Your task to perform on an android device: turn on bluetooth scan Image 0: 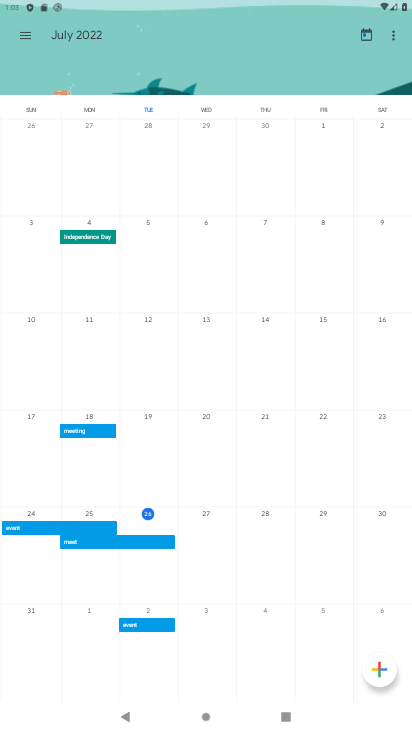
Step 0: press home button
Your task to perform on an android device: turn on bluetooth scan Image 1: 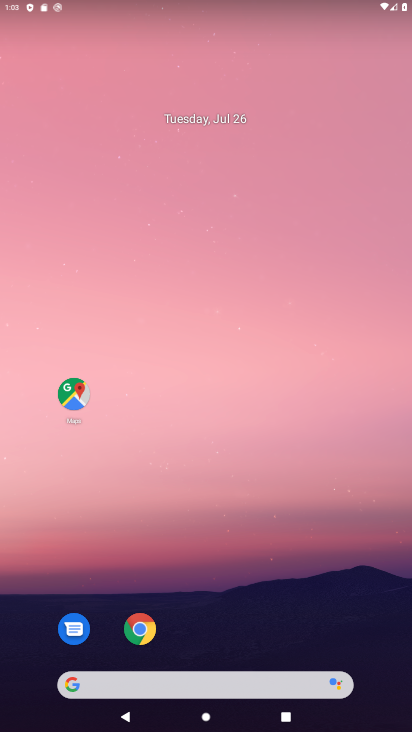
Step 1: drag from (390, 693) to (312, 55)
Your task to perform on an android device: turn on bluetooth scan Image 2: 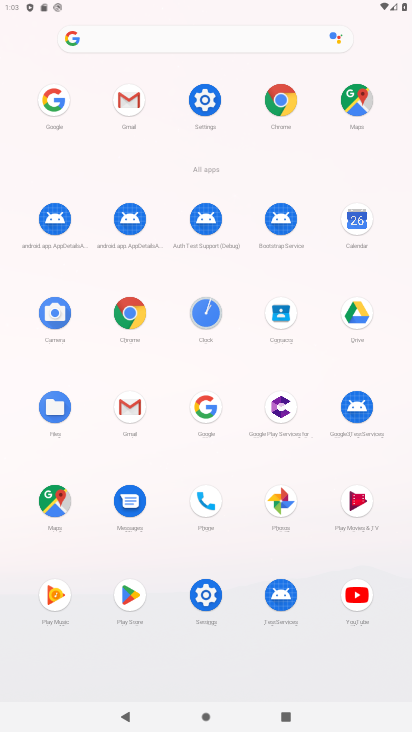
Step 2: click (197, 102)
Your task to perform on an android device: turn on bluetooth scan Image 3: 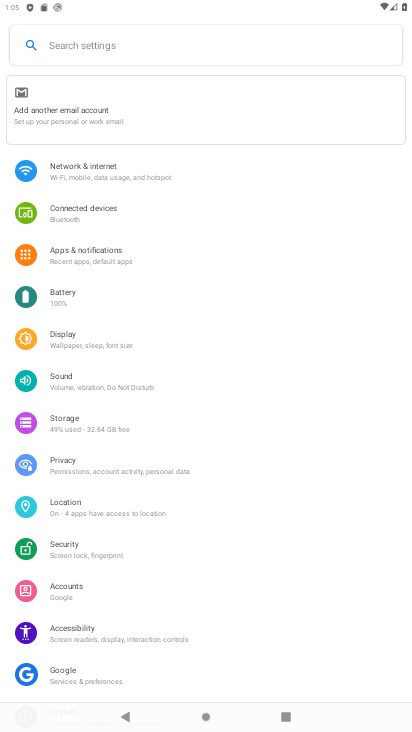
Step 3: click (66, 510)
Your task to perform on an android device: turn on bluetooth scan Image 4: 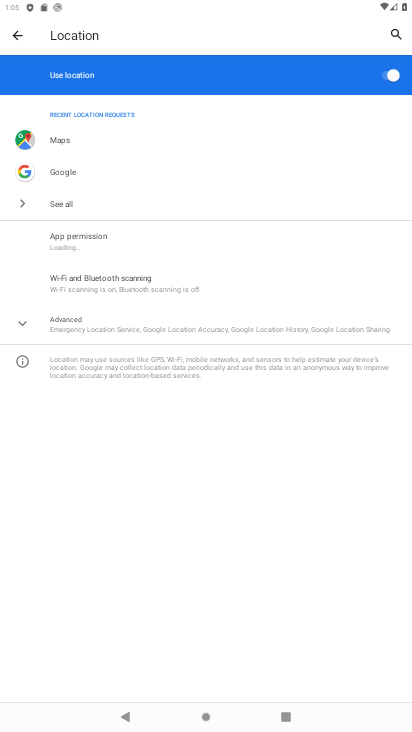
Step 4: click (23, 317)
Your task to perform on an android device: turn on bluetooth scan Image 5: 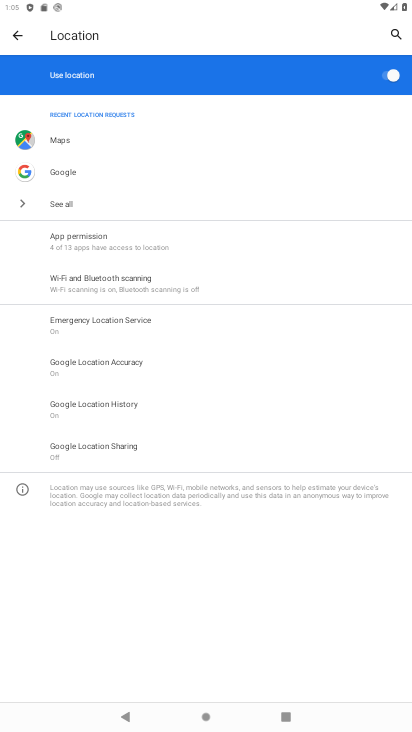
Step 5: click (131, 286)
Your task to perform on an android device: turn on bluetooth scan Image 6: 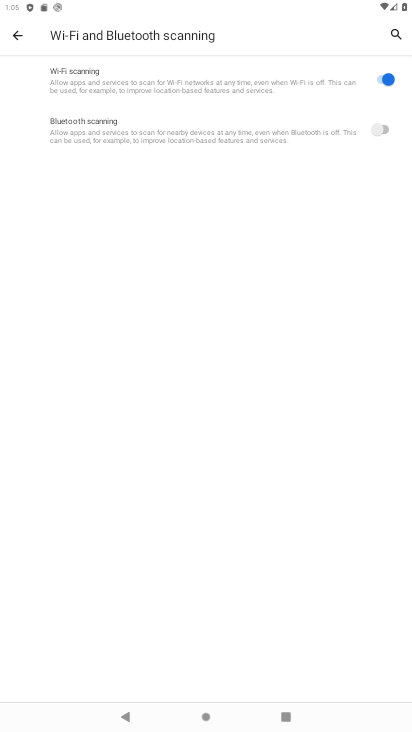
Step 6: click (385, 131)
Your task to perform on an android device: turn on bluetooth scan Image 7: 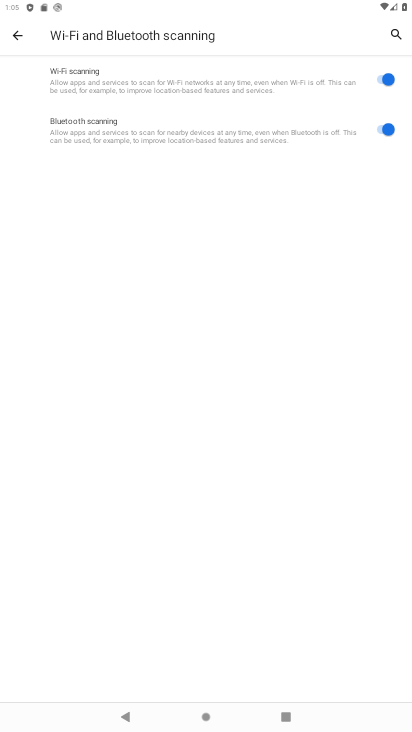
Step 7: task complete